Your task to perform on an android device: toggle pop-ups in chrome Image 0: 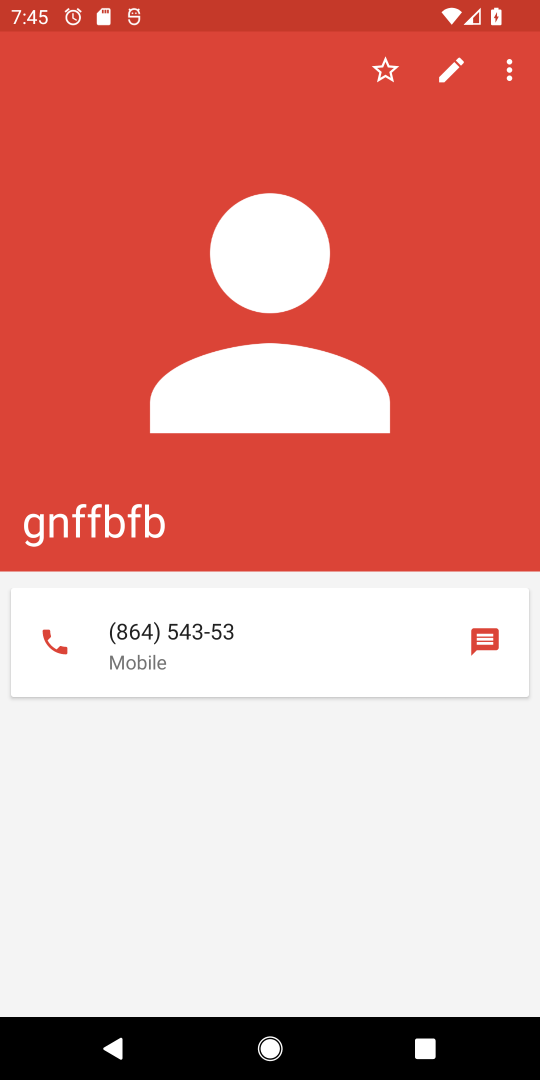
Step 0: press home button
Your task to perform on an android device: toggle pop-ups in chrome Image 1: 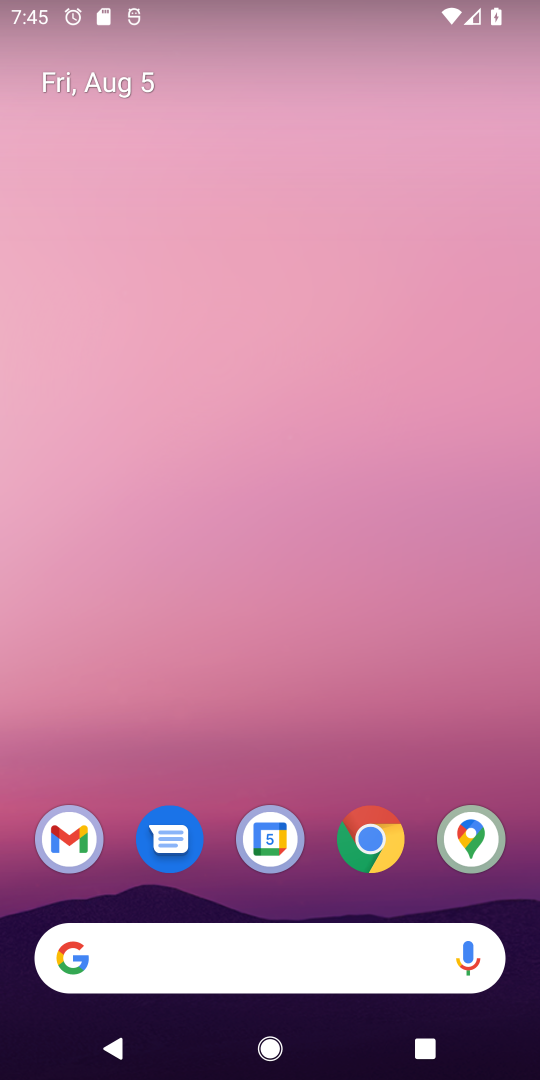
Step 1: click (355, 835)
Your task to perform on an android device: toggle pop-ups in chrome Image 2: 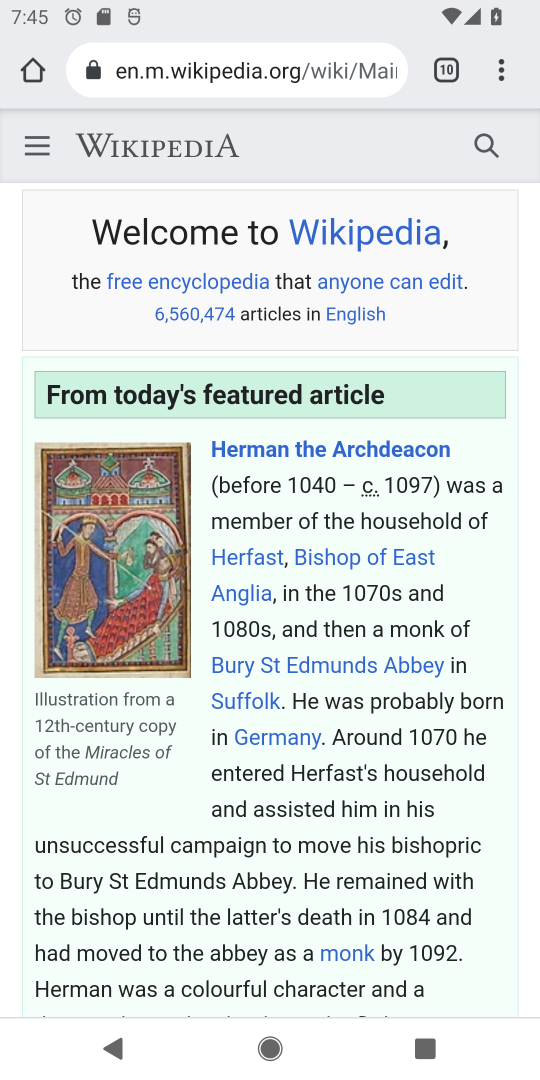
Step 2: drag from (501, 76) to (295, 836)
Your task to perform on an android device: toggle pop-ups in chrome Image 3: 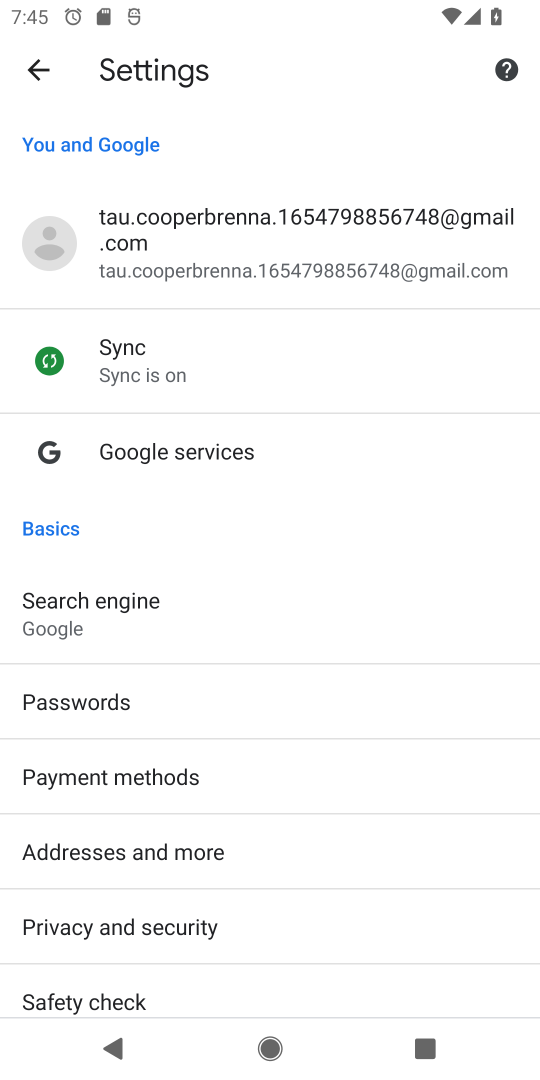
Step 3: drag from (259, 927) to (286, 246)
Your task to perform on an android device: toggle pop-ups in chrome Image 4: 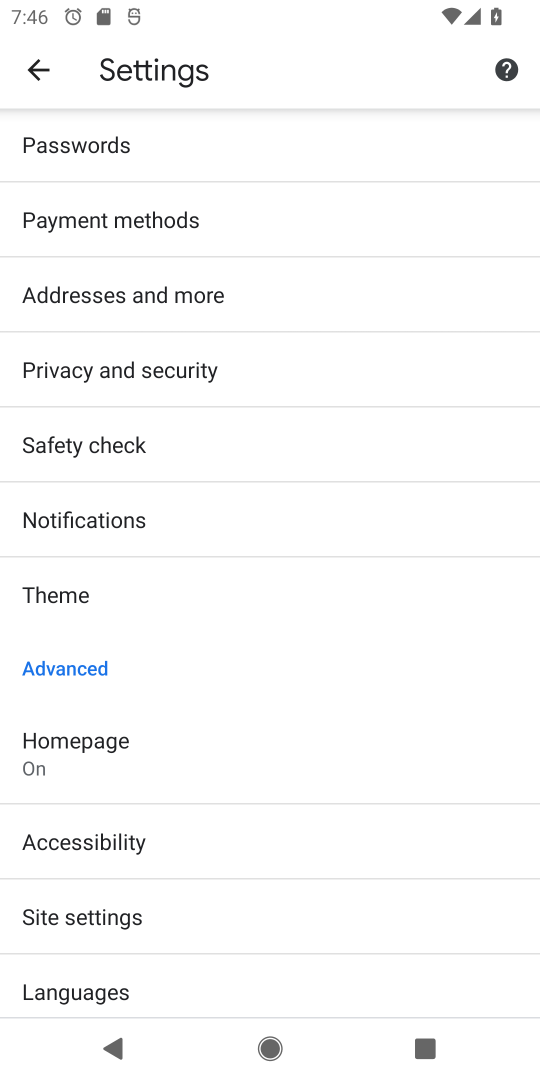
Step 4: click (170, 911)
Your task to perform on an android device: toggle pop-ups in chrome Image 5: 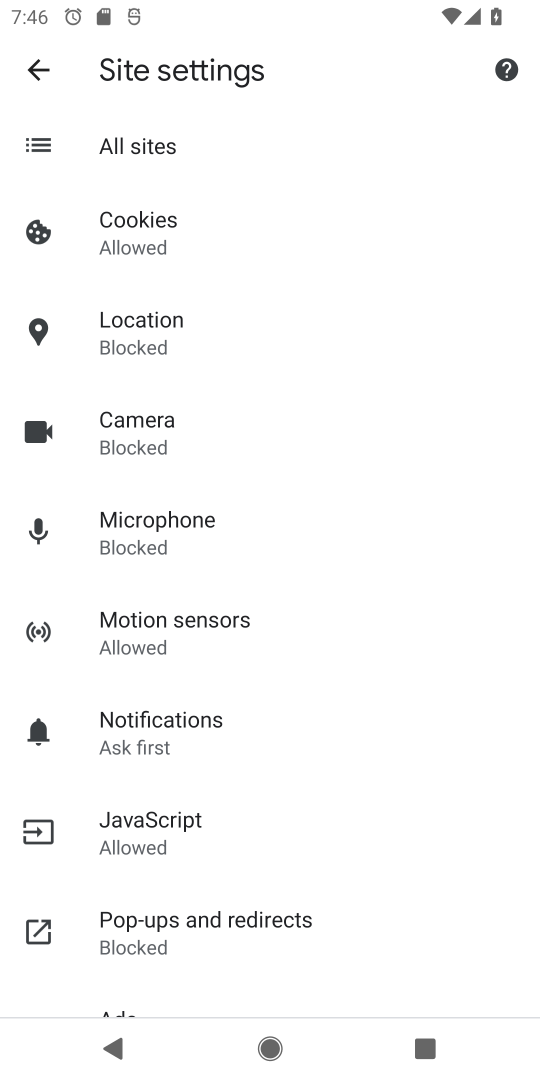
Step 5: click (197, 927)
Your task to perform on an android device: toggle pop-ups in chrome Image 6: 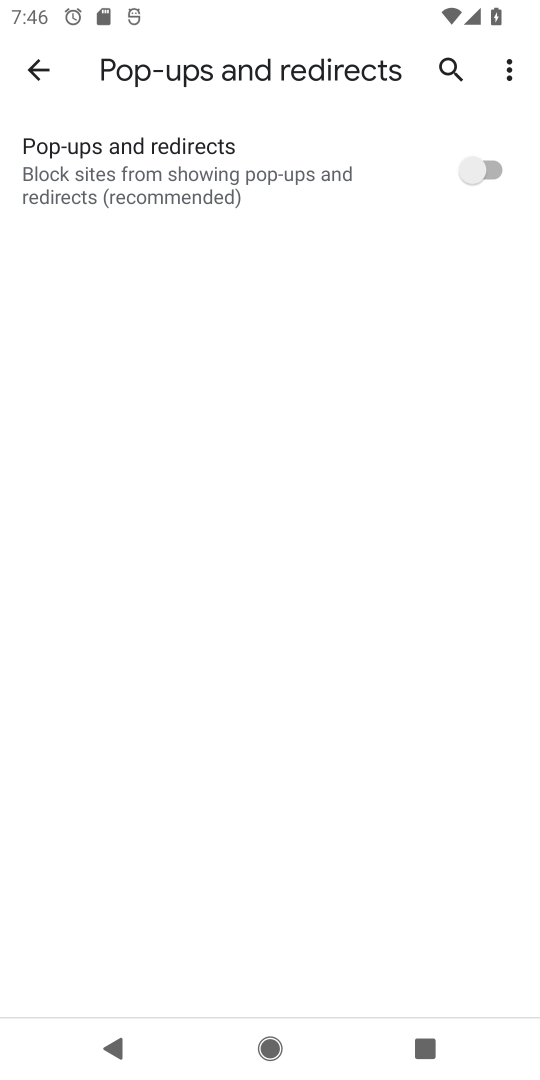
Step 6: click (495, 170)
Your task to perform on an android device: toggle pop-ups in chrome Image 7: 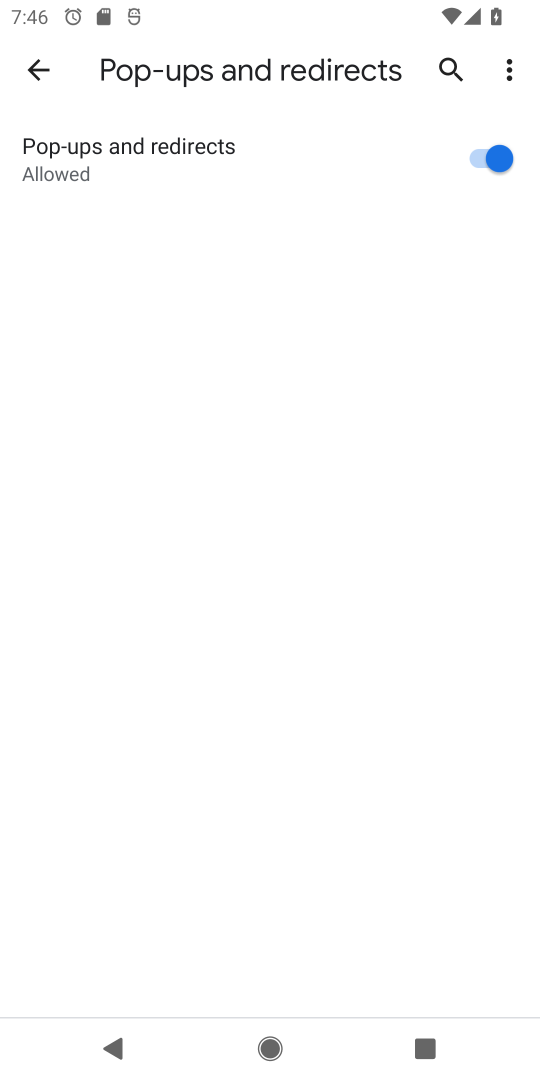
Step 7: task complete